Your task to perform on an android device: turn on airplane mode Image 0: 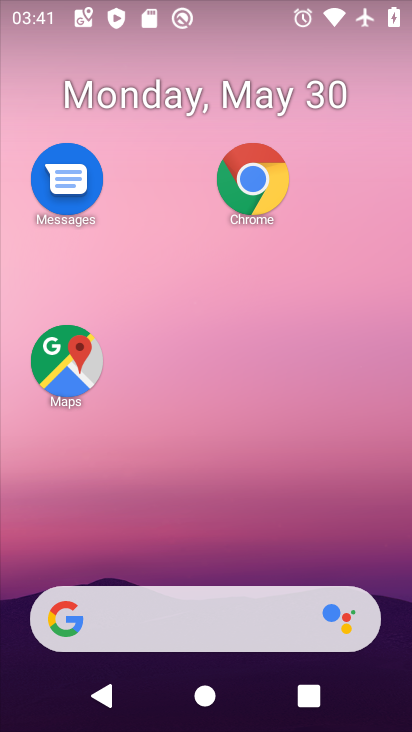
Step 0: drag from (237, 536) to (409, 140)
Your task to perform on an android device: turn on airplane mode Image 1: 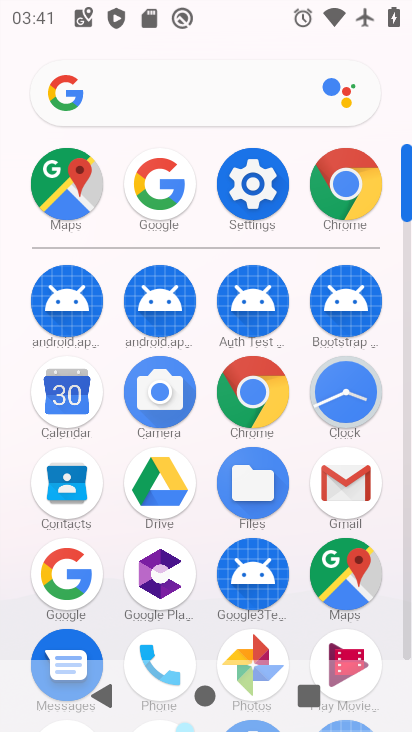
Step 1: click (254, 186)
Your task to perform on an android device: turn on airplane mode Image 2: 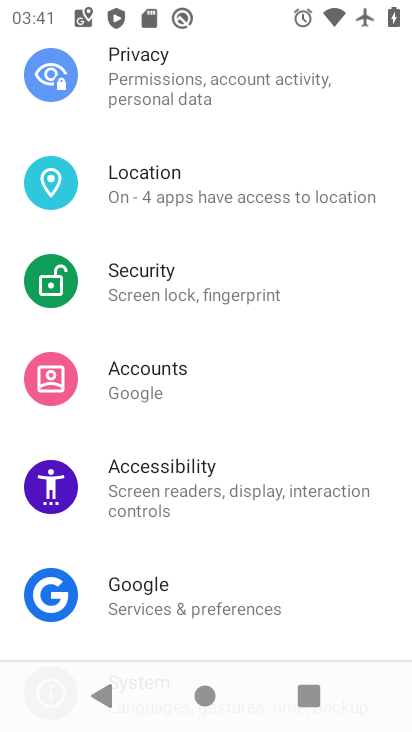
Step 2: drag from (165, 299) to (186, 729)
Your task to perform on an android device: turn on airplane mode Image 3: 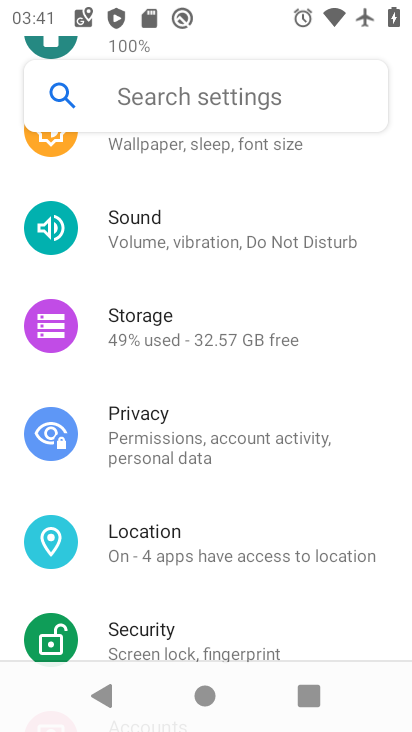
Step 3: click (179, 556)
Your task to perform on an android device: turn on airplane mode Image 4: 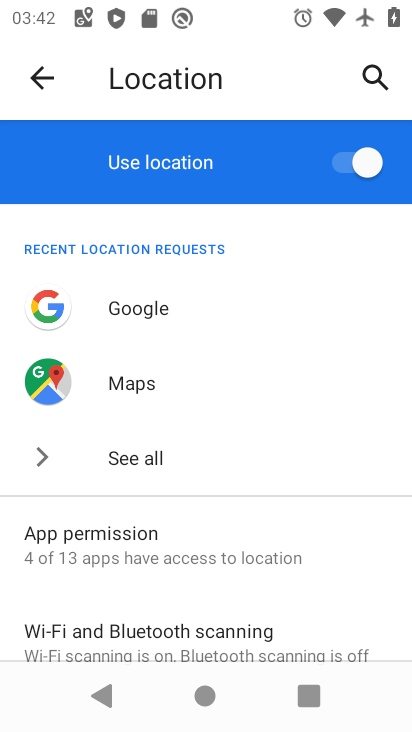
Step 4: click (127, 542)
Your task to perform on an android device: turn on airplane mode Image 5: 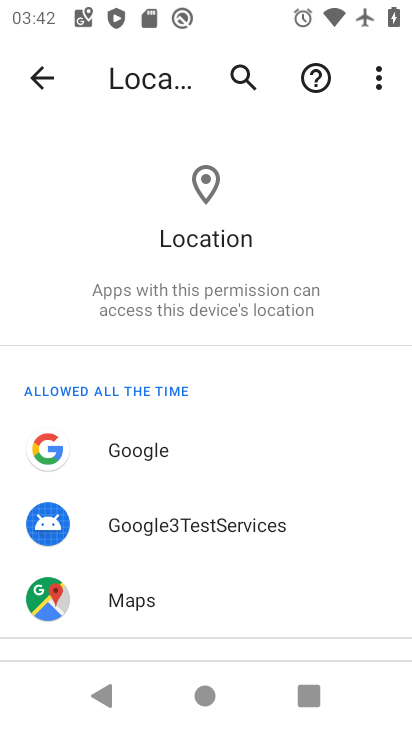
Step 5: task complete